Your task to perform on an android device: check android version Image 0: 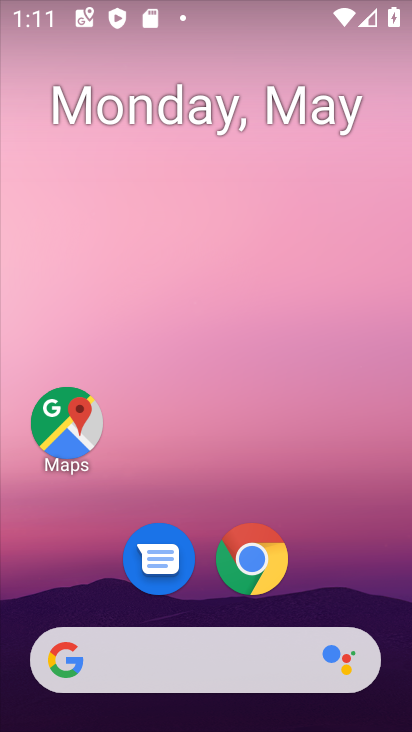
Step 0: drag from (182, 720) to (391, 12)
Your task to perform on an android device: check android version Image 1: 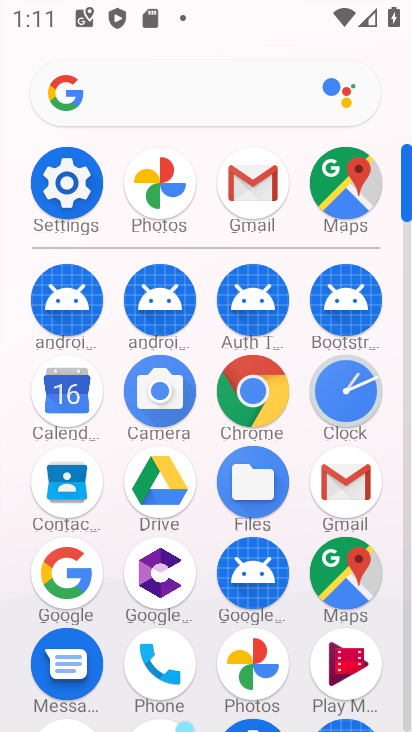
Step 1: click (62, 177)
Your task to perform on an android device: check android version Image 2: 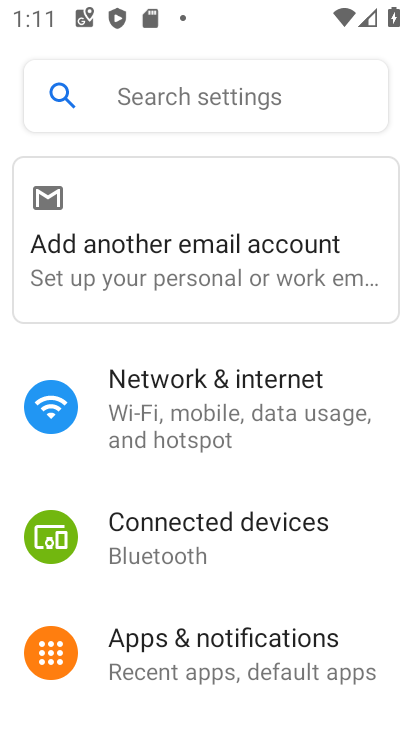
Step 2: drag from (269, 708) to (354, 45)
Your task to perform on an android device: check android version Image 3: 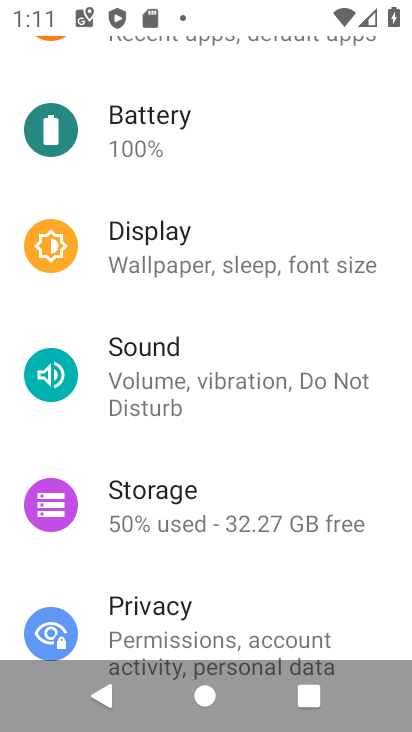
Step 3: drag from (318, 635) to (286, 172)
Your task to perform on an android device: check android version Image 4: 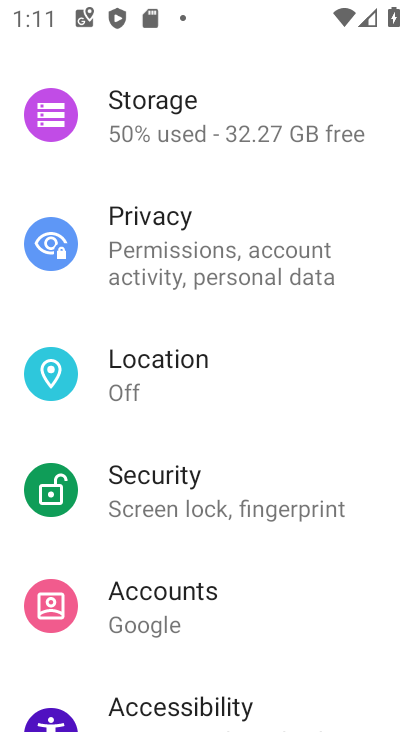
Step 4: drag from (197, 626) to (212, 4)
Your task to perform on an android device: check android version Image 5: 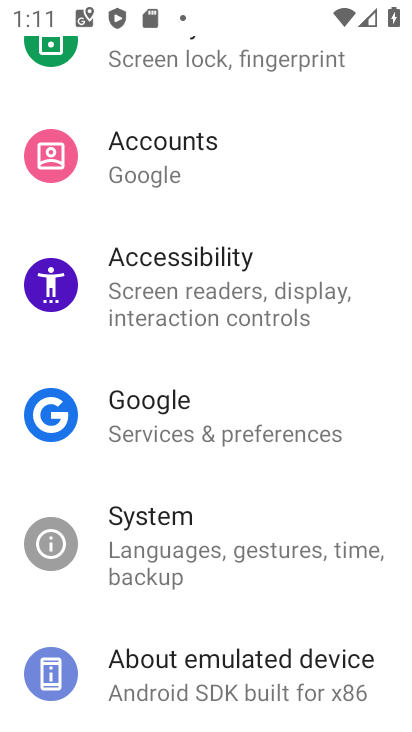
Step 5: drag from (216, 675) to (284, 64)
Your task to perform on an android device: check android version Image 6: 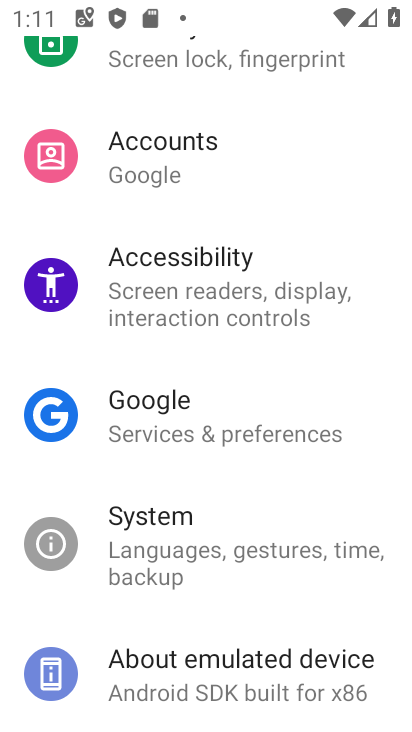
Step 6: click (267, 677)
Your task to perform on an android device: check android version Image 7: 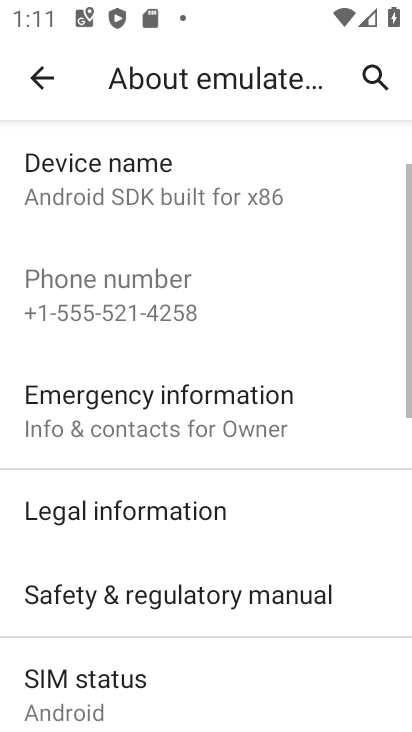
Step 7: task complete